Your task to perform on an android device: delete browsing data in the chrome app Image 0: 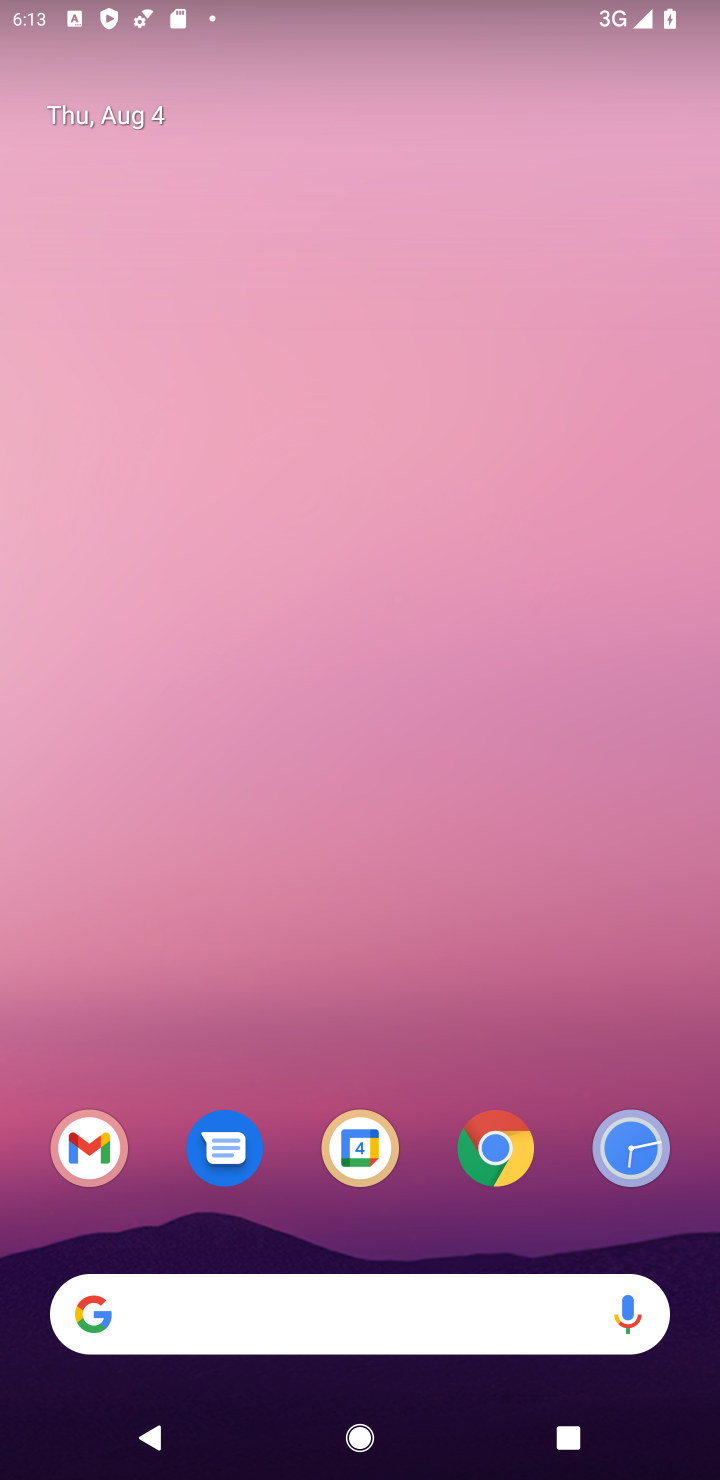
Step 0: click (495, 1147)
Your task to perform on an android device: delete browsing data in the chrome app Image 1: 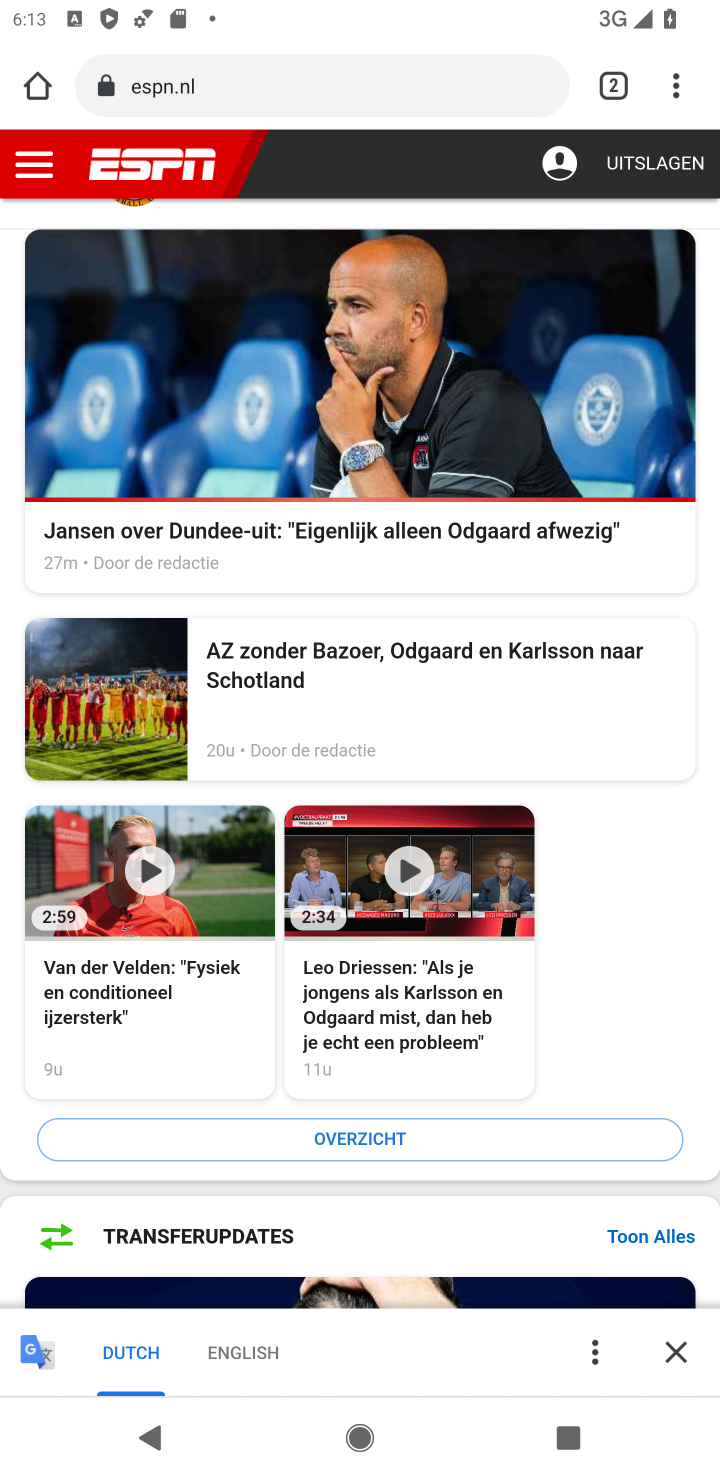
Step 1: click (666, 94)
Your task to perform on an android device: delete browsing data in the chrome app Image 2: 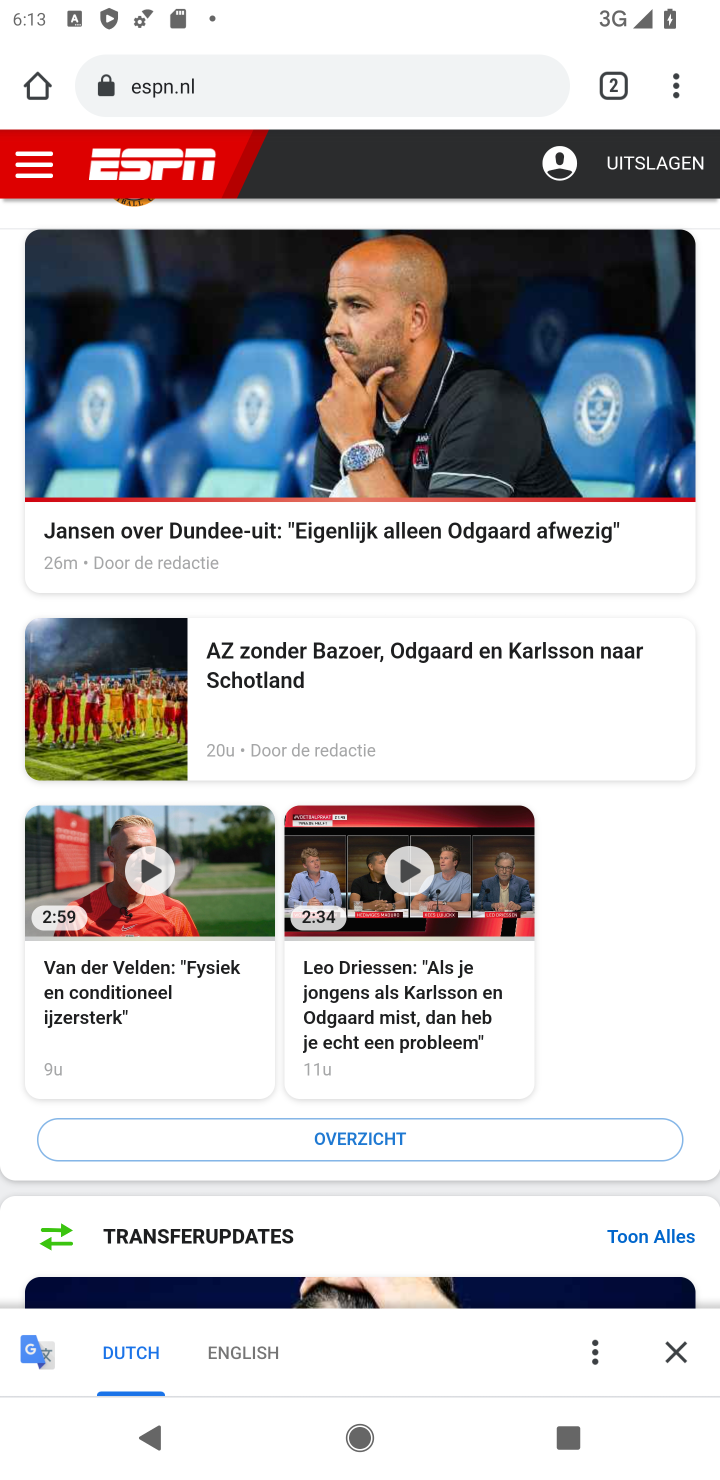
Step 2: click (676, 99)
Your task to perform on an android device: delete browsing data in the chrome app Image 3: 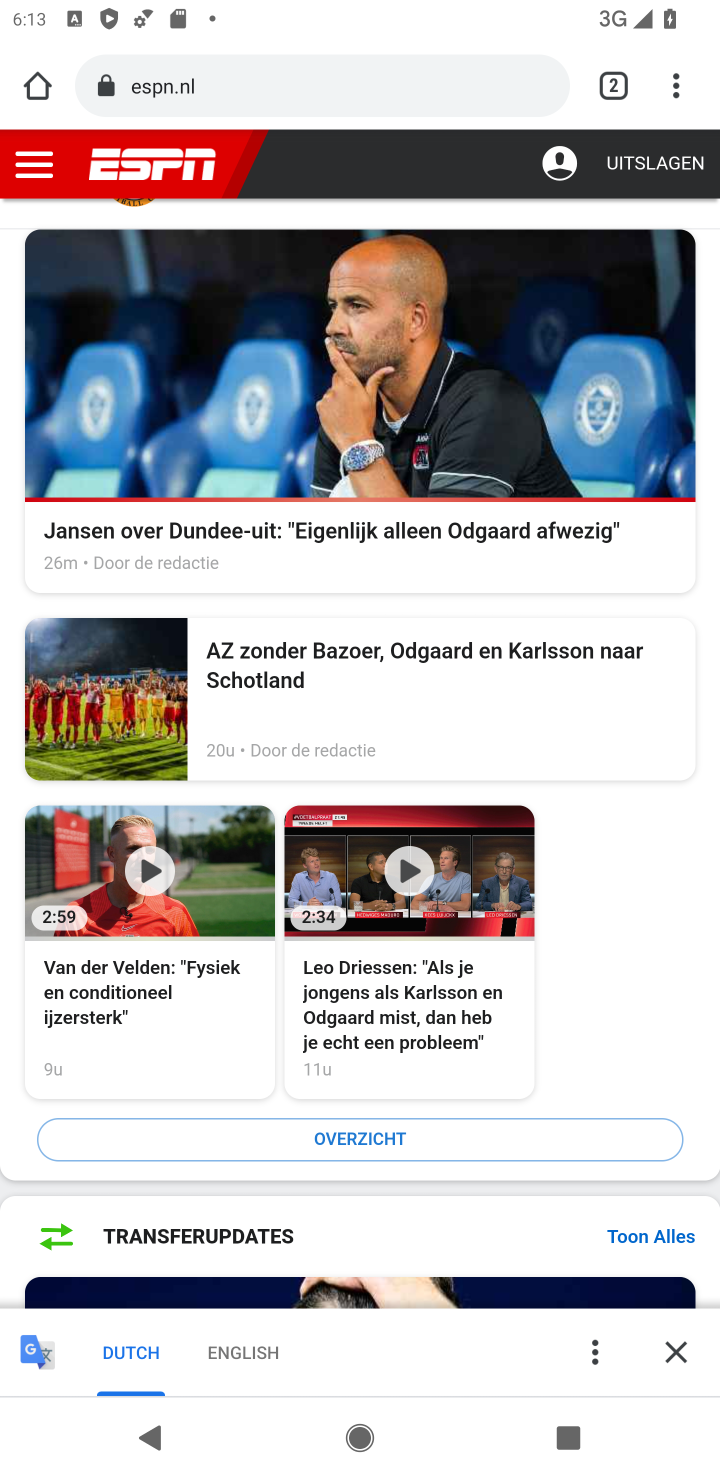
Step 3: click (669, 98)
Your task to perform on an android device: delete browsing data in the chrome app Image 4: 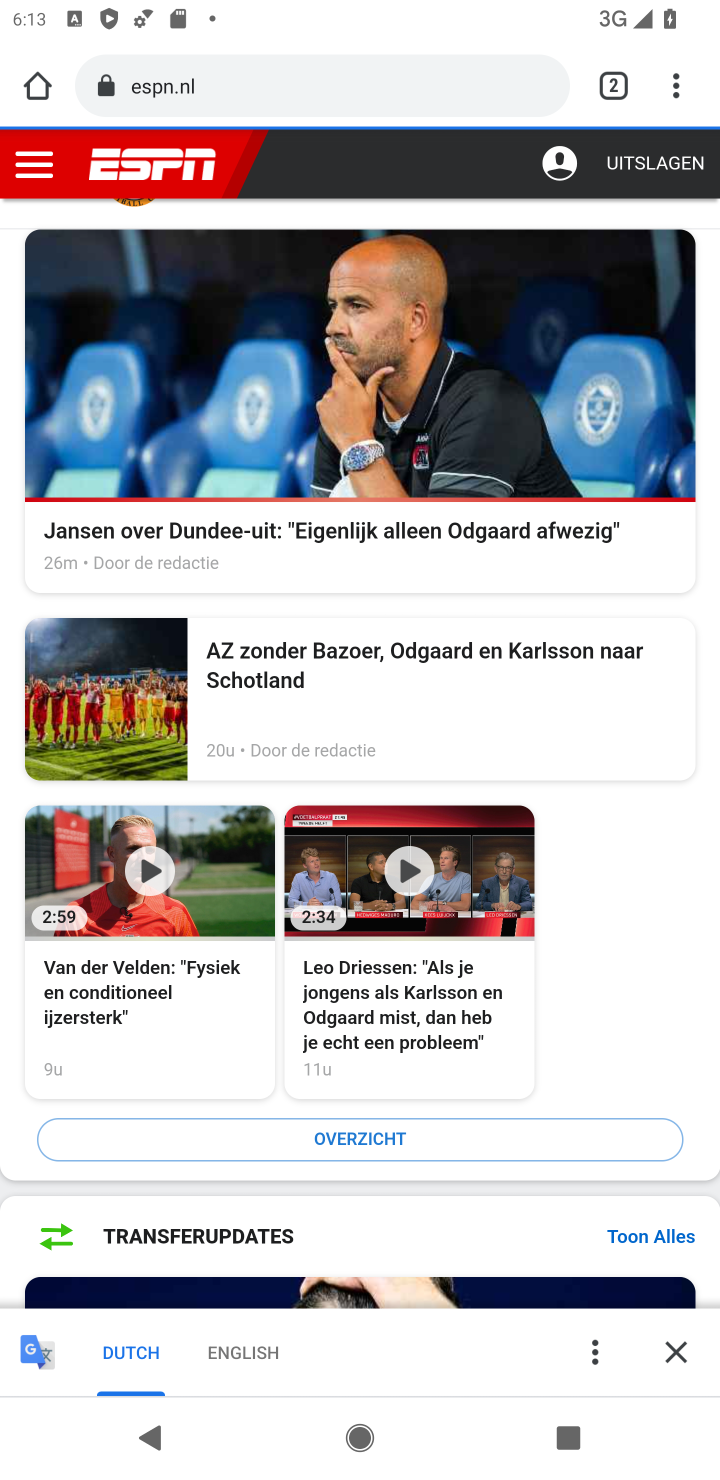
Step 4: click (665, 96)
Your task to perform on an android device: delete browsing data in the chrome app Image 5: 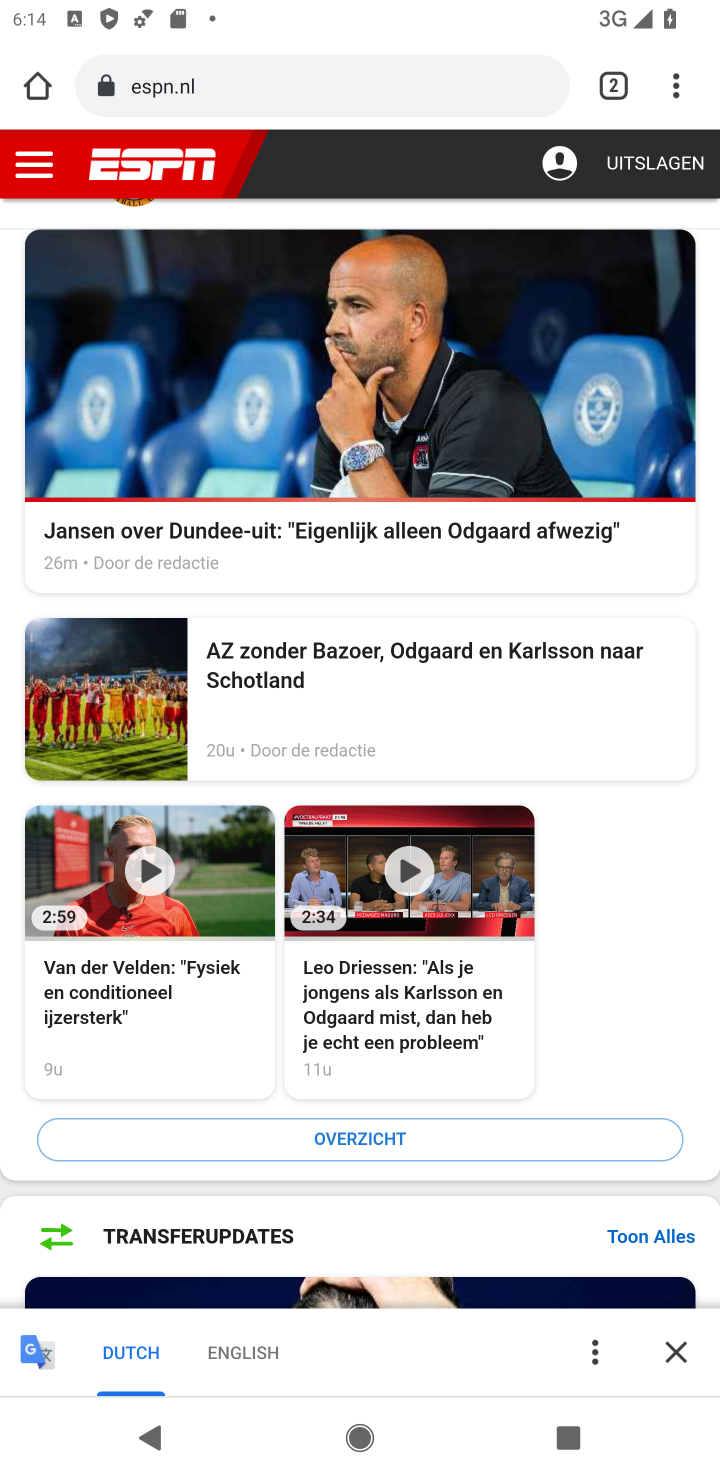
Step 5: click (673, 97)
Your task to perform on an android device: delete browsing data in the chrome app Image 6: 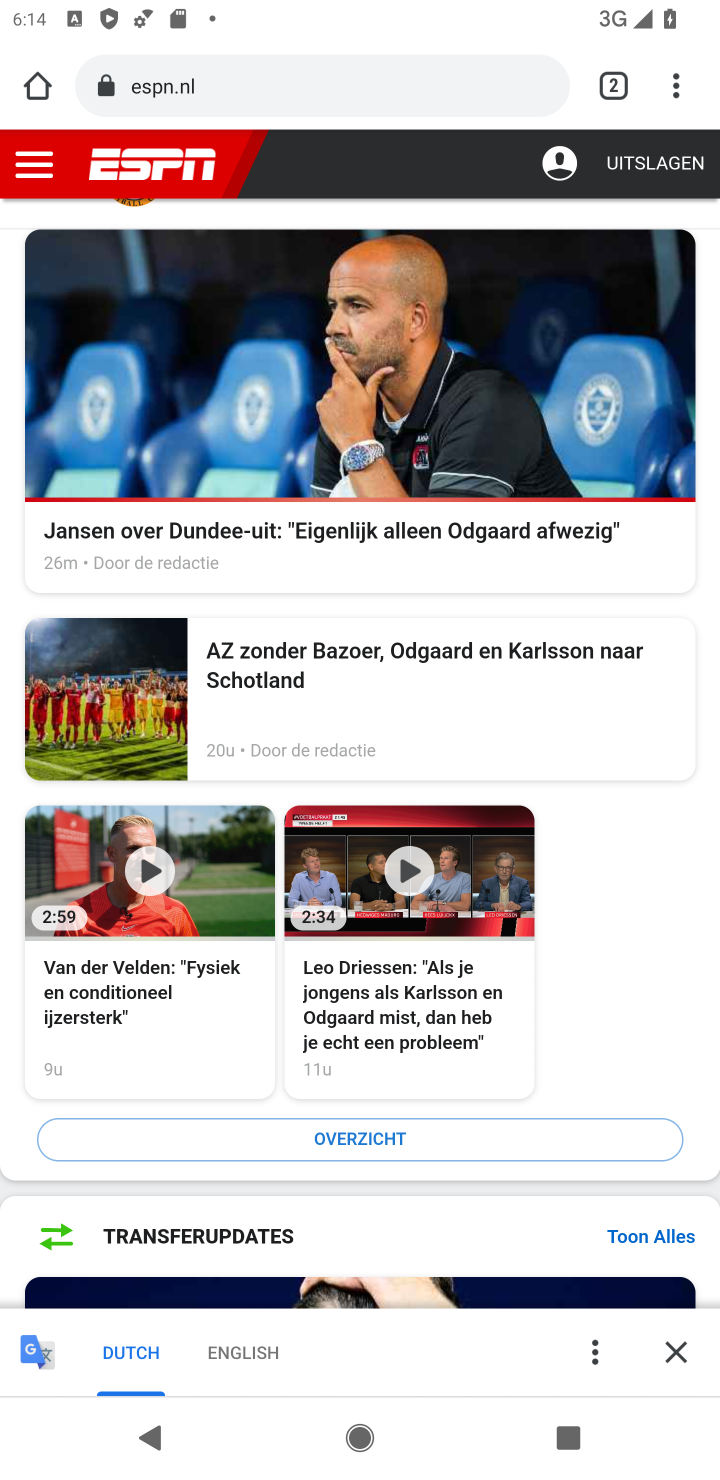
Step 6: task complete